Your task to perform on an android device: Search for Mexican restaurants on Maps Image 0: 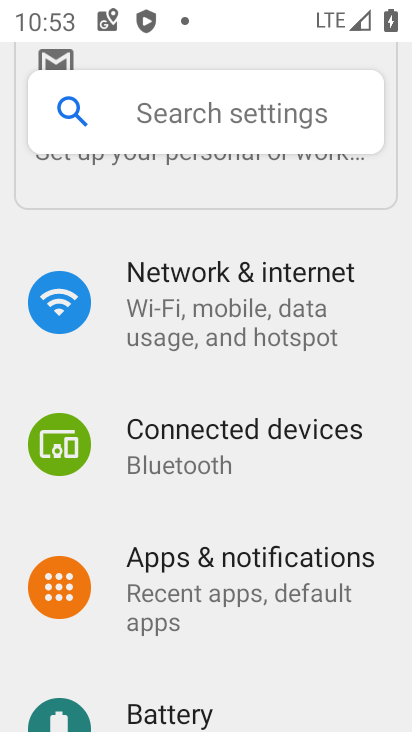
Step 0: press home button
Your task to perform on an android device: Search for Mexican restaurants on Maps Image 1: 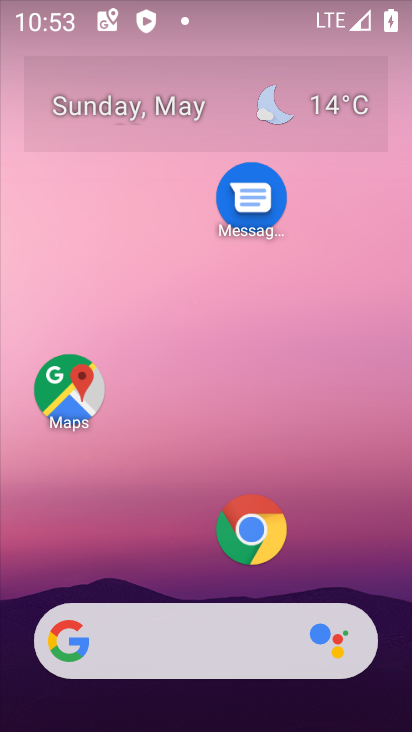
Step 1: click (52, 390)
Your task to perform on an android device: Search for Mexican restaurants on Maps Image 2: 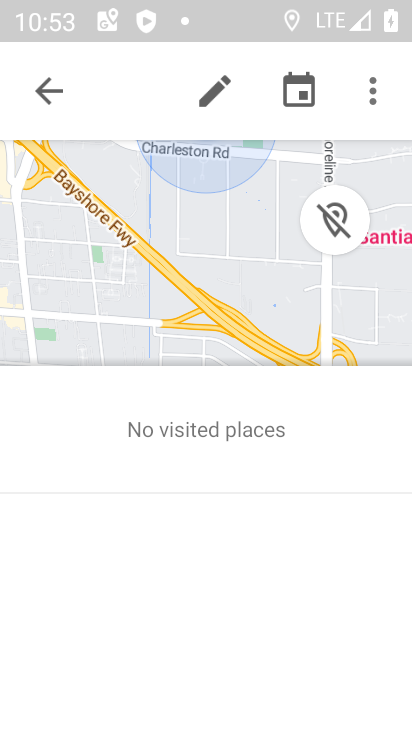
Step 2: click (38, 90)
Your task to perform on an android device: Search for Mexican restaurants on Maps Image 3: 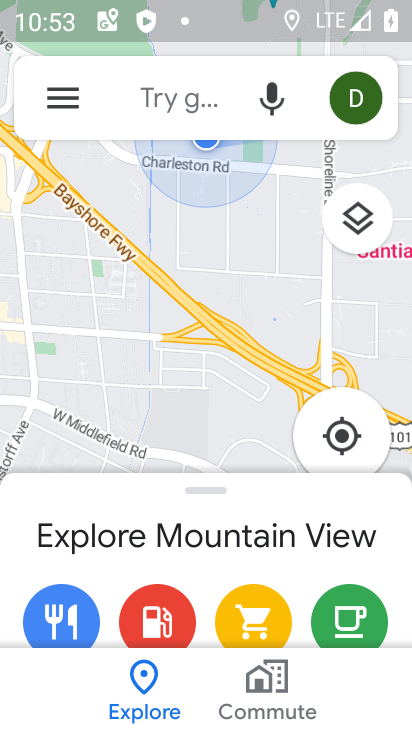
Step 3: click (176, 101)
Your task to perform on an android device: Search for Mexican restaurants on Maps Image 4: 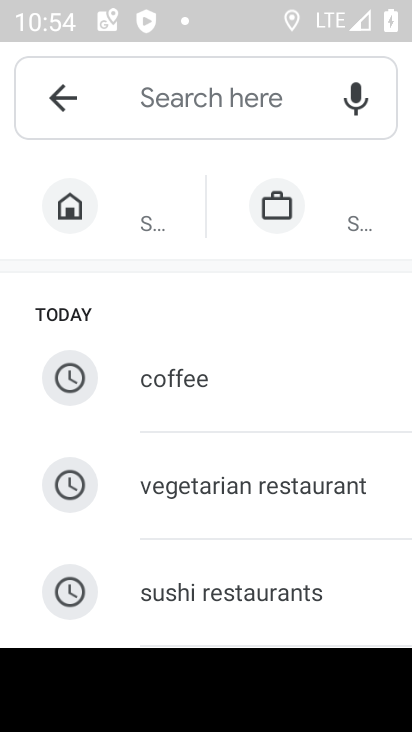
Step 4: type "Mexican restaurants"
Your task to perform on an android device: Search for Mexican restaurants on Maps Image 5: 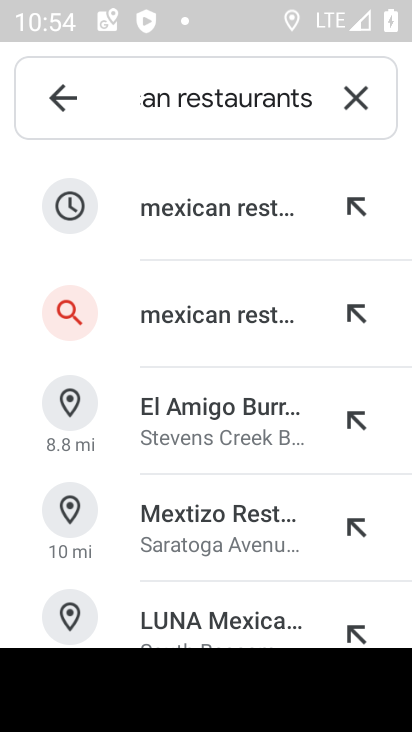
Step 5: click (195, 219)
Your task to perform on an android device: Search for Mexican restaurants on Maps Image 6: 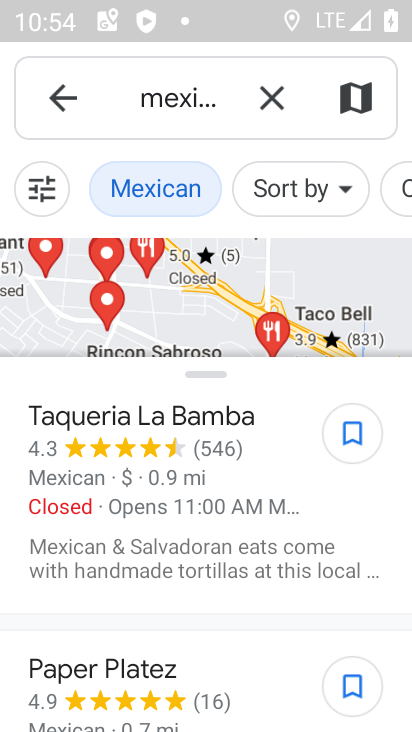
Step 6: task complete